Your task to perform on an android device: Open settings on Google Maps Image 0: 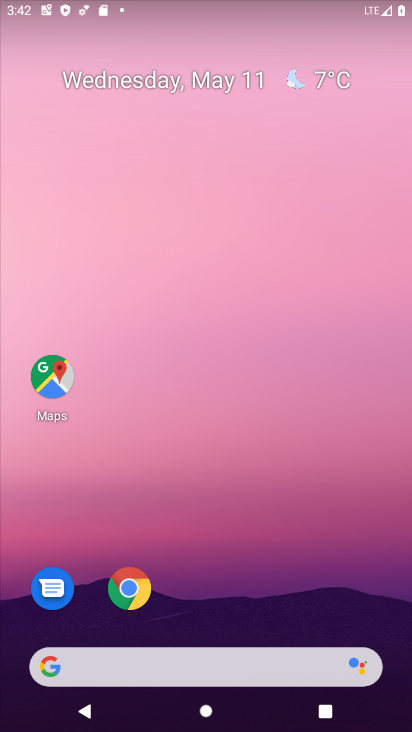
Step 0: drag from (224, 727) to (221, 213)
Your task to perform on an android device: Open settings on Google Maps Image 1: 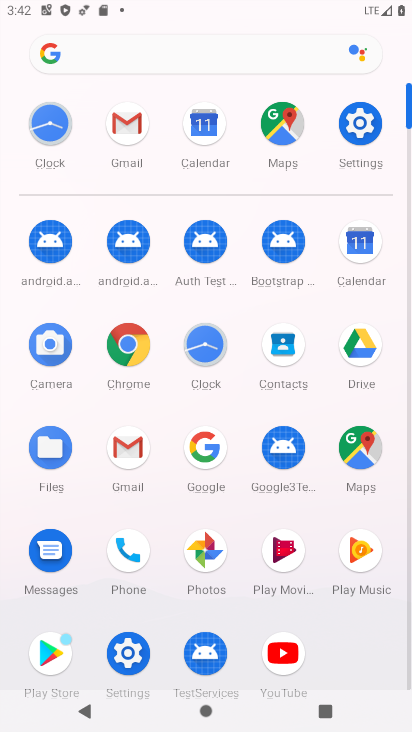
Step 1: click (370, 446)
Your task to perform on an android device: Open settings on Google Maps Image 2: 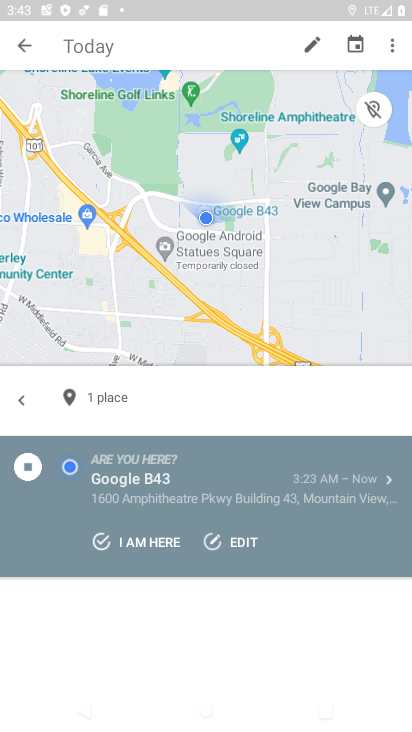
Step 2: click (22, 45)
Your task to perform on an android device: Open settings on Google Maps Image 3: 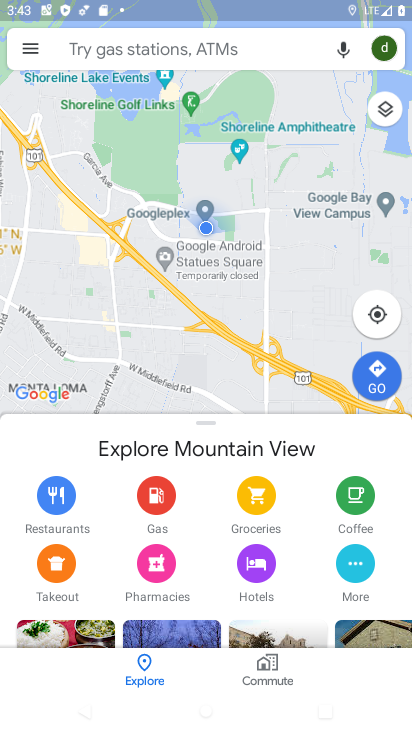
Step 3: click (22, 45)
Your task to perform on an android device: Open settings on Google Maps Image 4: 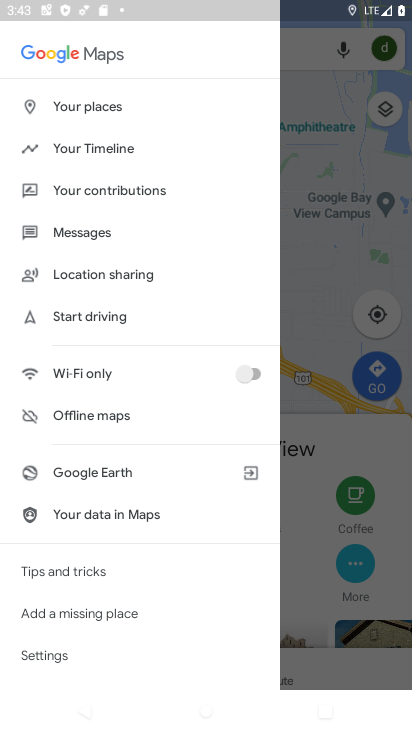
Step 4: click (50, 654)
Your task to perform on an android device: Open settings on Google Maps Image 5: 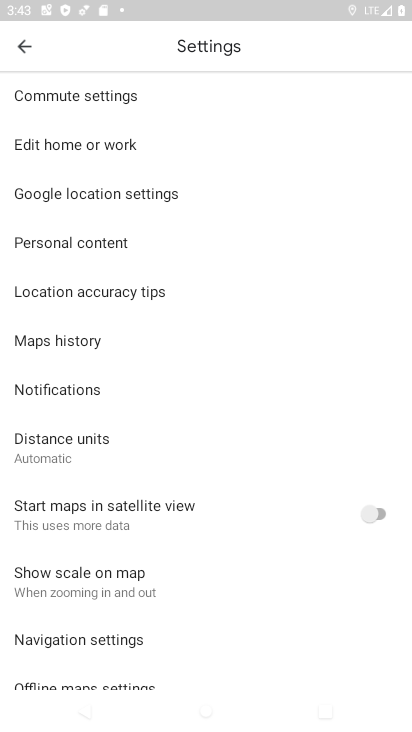
Step 5: task complete